Your task to perform on an android device: turn on javascript in the chrome app Image 0: 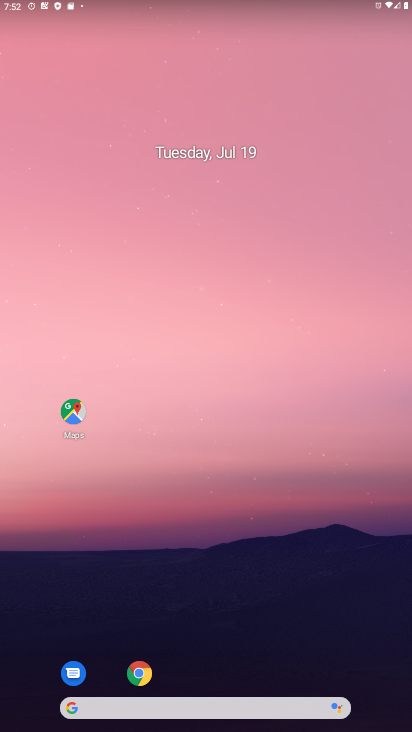
Step 0: drag from (225, 621) to (272, 79)
Your task to perform on an android device: turn on javascript in the chrome app Image 1: 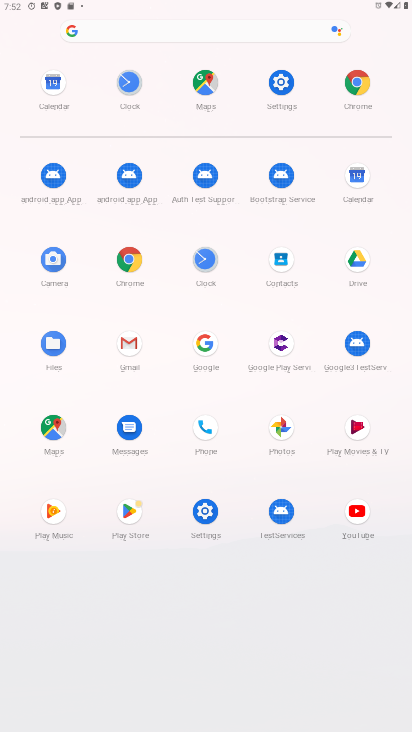
Step 1: click (354, 89)
Your task to perform on an android device: turn on javascript in the chrome app Image 2: 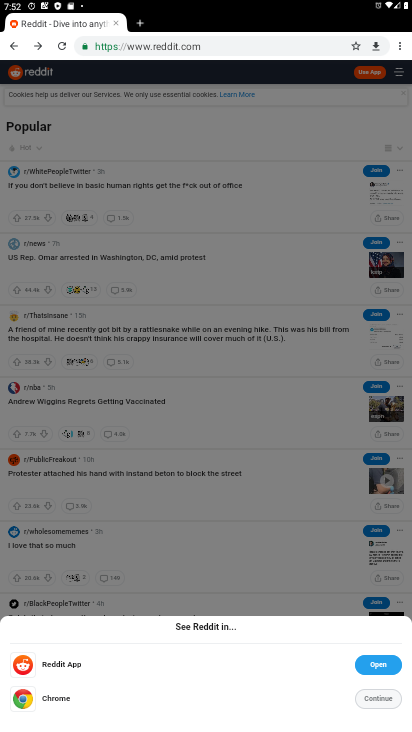
Step 2: drag from (408, 47) to (297, 315)
Your task to perform on an android device: turn on javascript in the chrome app Image 3: 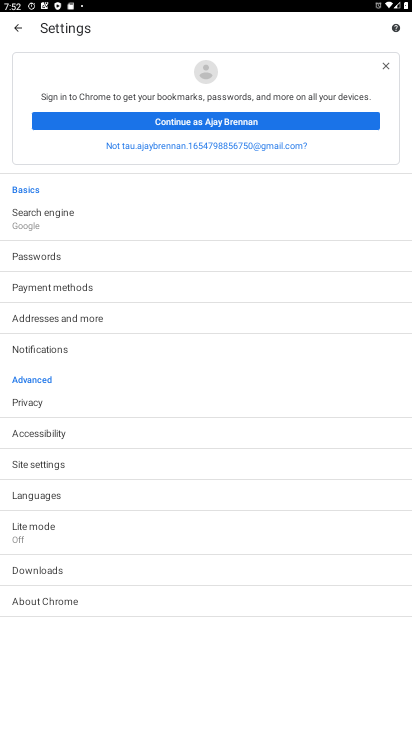
Step 3: click (14, 466)
Your task to perform on an android device: turn on javascript in the chrome app Image 4: 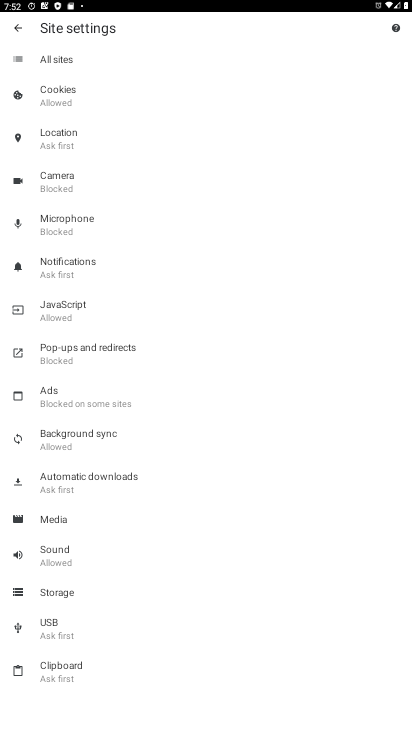
Step 4: click (61, 302)
Your task to perform on an android device: turn on javascript in the chrome app Image 5: 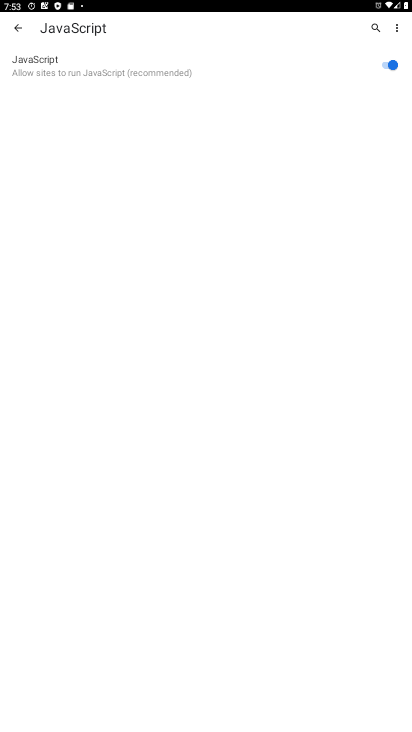
Step 5: task complete